Your task to perform on an android device: turn off picture-in-picture Image 0: 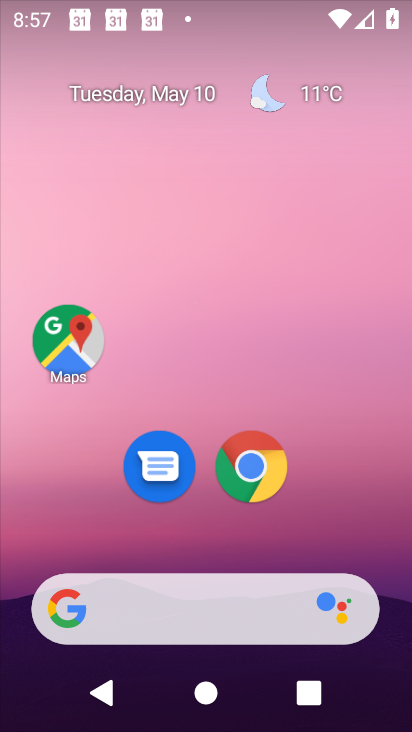
Step 0: click (278, 469)
Your task to perform on an android device: turn off picture-in-picture Image 1: 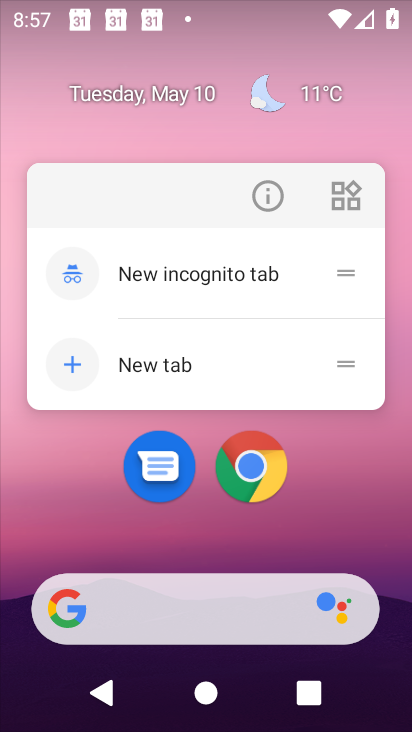
Step 1: click (275, 199)
Your task to perform on an android device: turn off picture-in-picture Image 2: 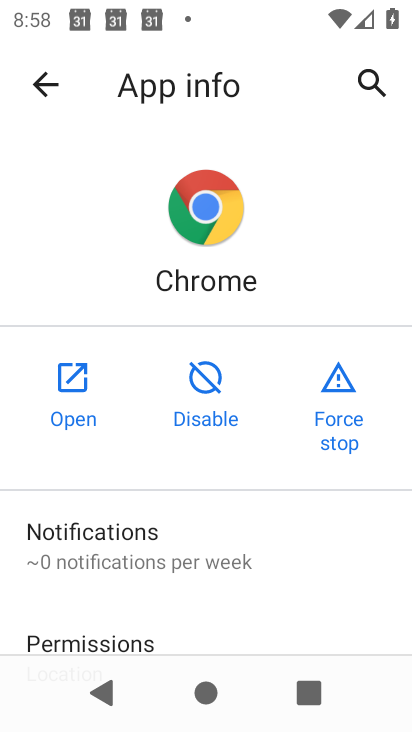
Step 2: drag from (145, 549) to (174, 79)
Your task to perform on an android device: turn off picture-in-picture Image 3: 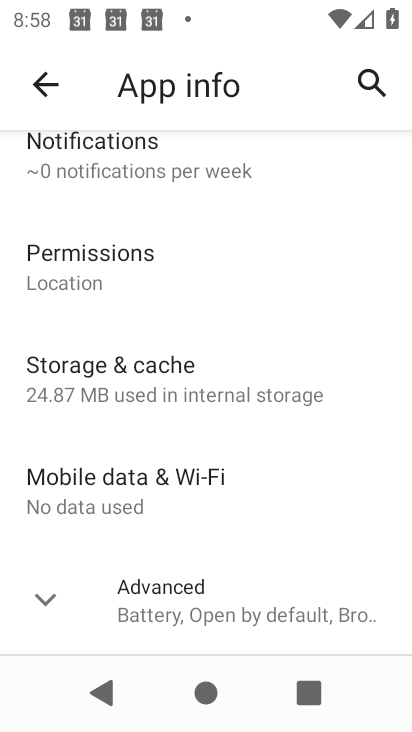
Step 3: click (144, 589)
Your task to perform on an android device: turn off picture-in-picture Image 4: 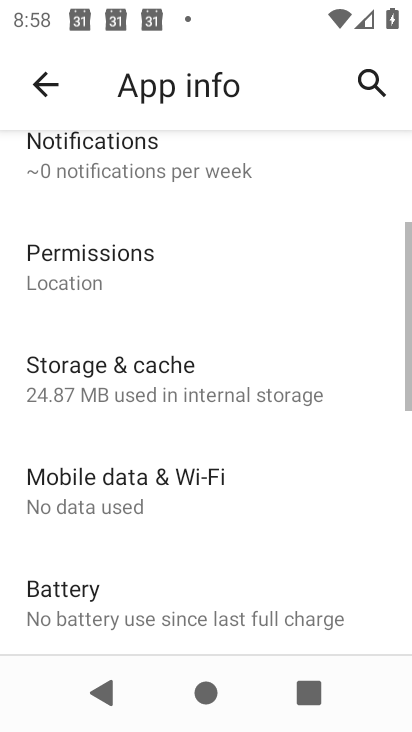
Step 4: drag from (129, 608) to (161, 199)
Your task to perform on an android device: turn off picture-in-picture Image 5: 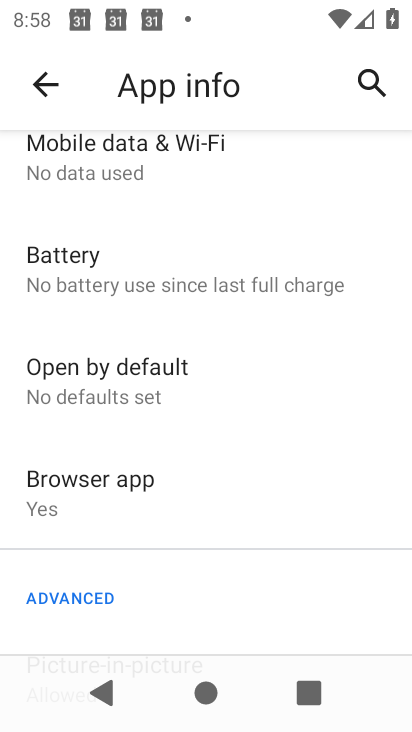
Step 5: drag from (139, 562) to (164, 290)
Your task to perform on an android device: turn off picture-in-picture Image 6: 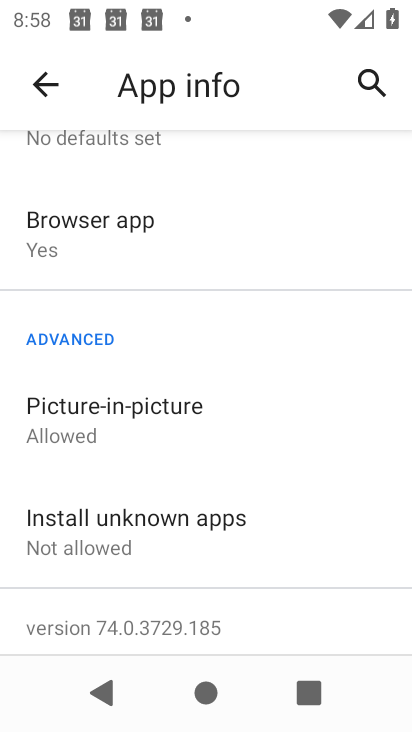
Step 6: click (132, 430)
Your task to perform on an android device: turn off picture-in-picture Image 7: 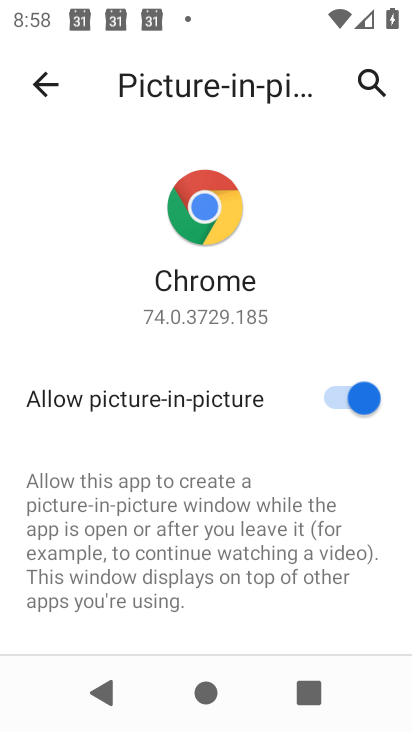
Step 7: click (316, 390)
Your task to perform on an android device: turn off picture-in-picture Image 8: 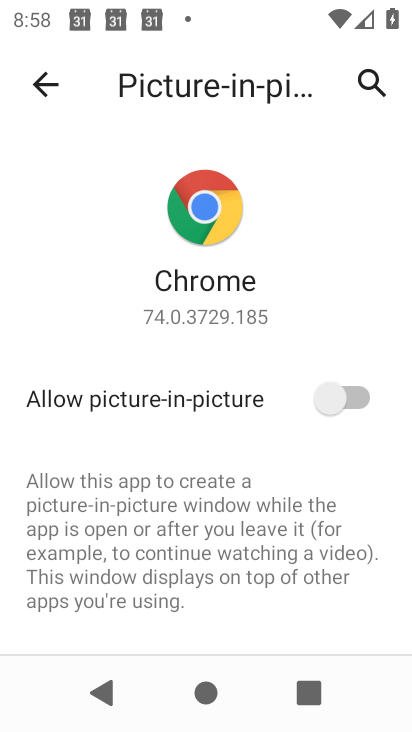
Step 8: task complete